Your task to perform on an android device: open app "Airtel Thanks" (install if not already installed) Image 0: 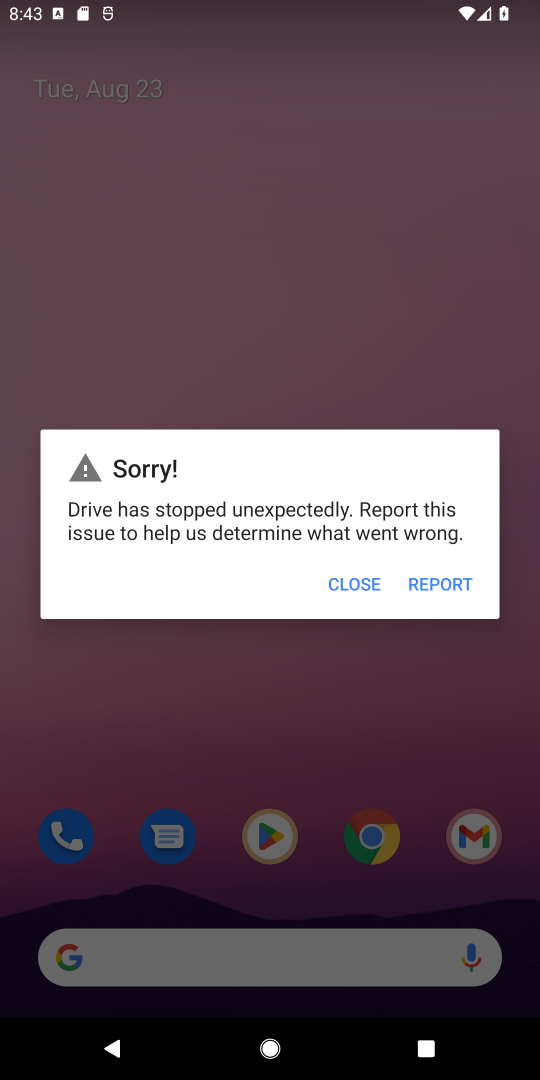
Step 0: press home button
Your task to perform on an android device: open app "Airtel Thanks" (install if not already installed) Image 1: 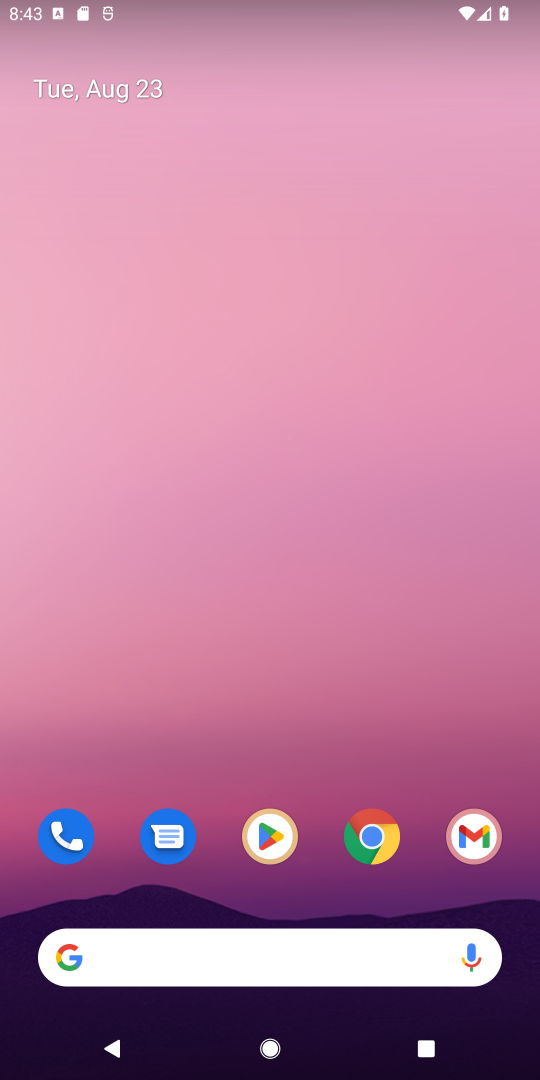
Step 1: click (264, 836)
Your task to perform on an android device: open app "Airtel Thanks" (install if not already installed) Image 2: 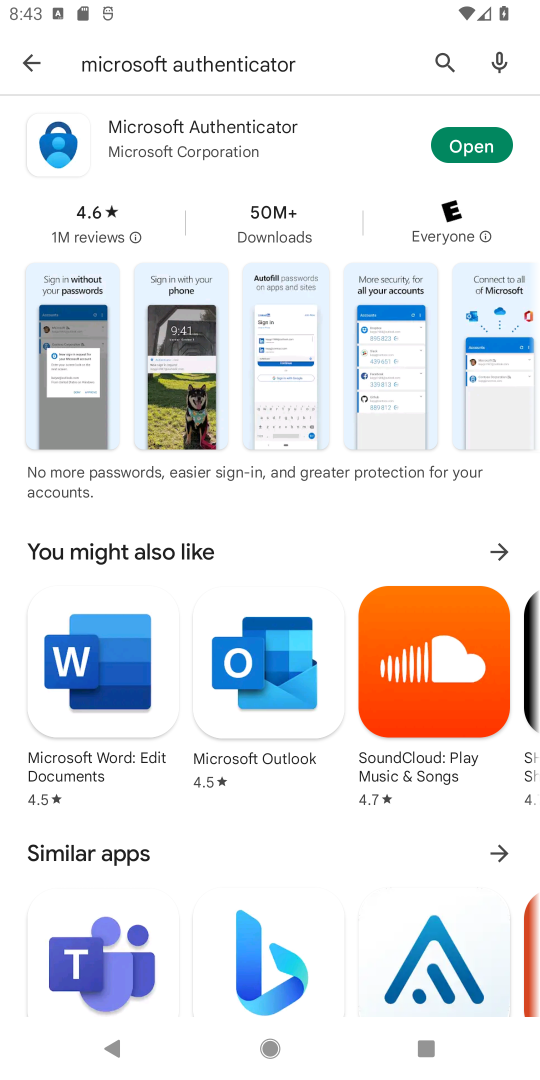
Step 2: click (436, 55)
Your task to perform on an android device: open app "Airtel Thanks" (install if not already installed) Image 3: 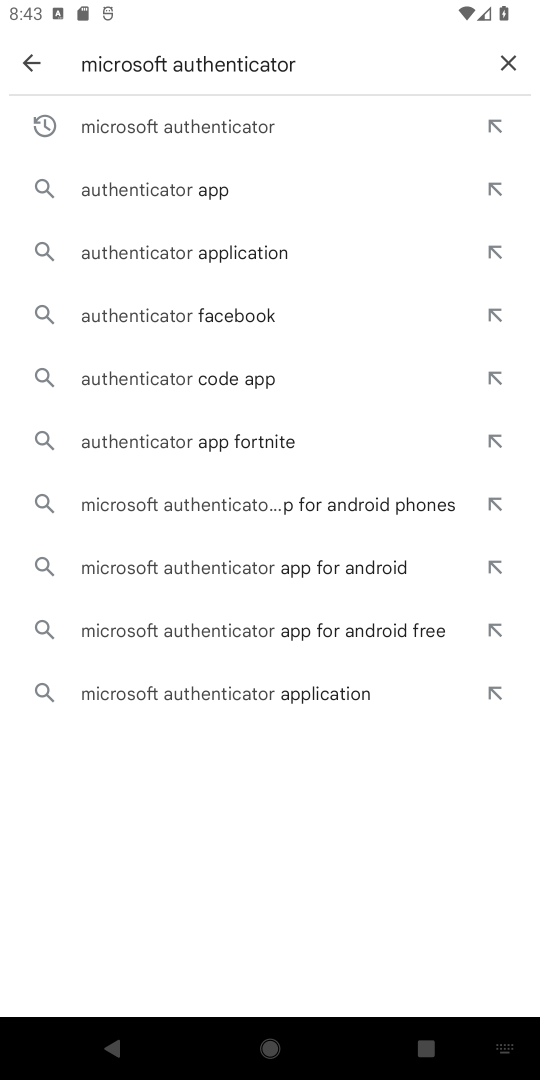
Step 3: click (512, 57)
Your task to perform on an android device: open app "Airtel Thanks" (install if not already installed) Image 4: 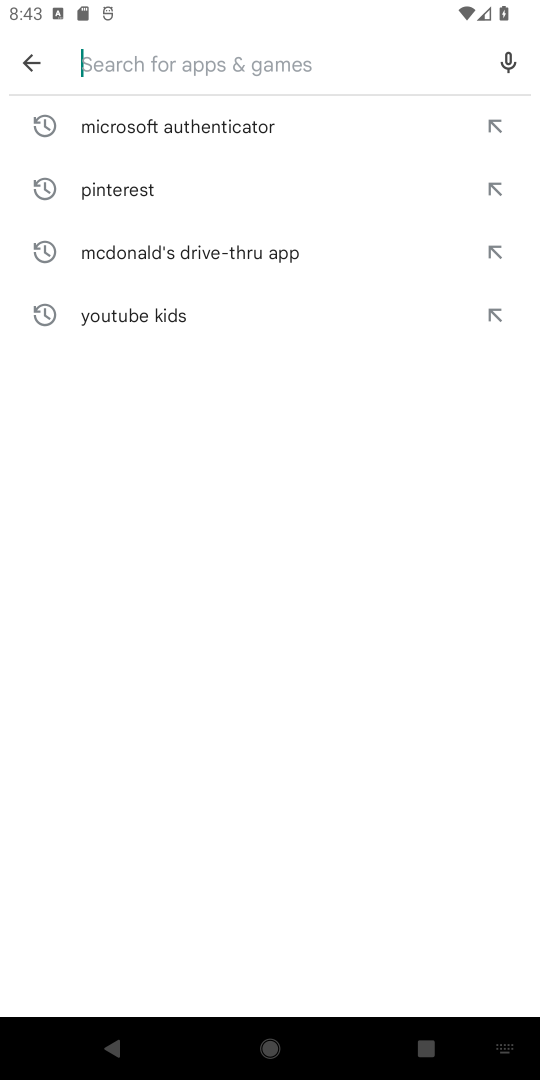
Step 4: type "Airtel Thanks"
Your task to perform on an android device: open app "Airtel Thanks" (install if not already installed) Image 5: 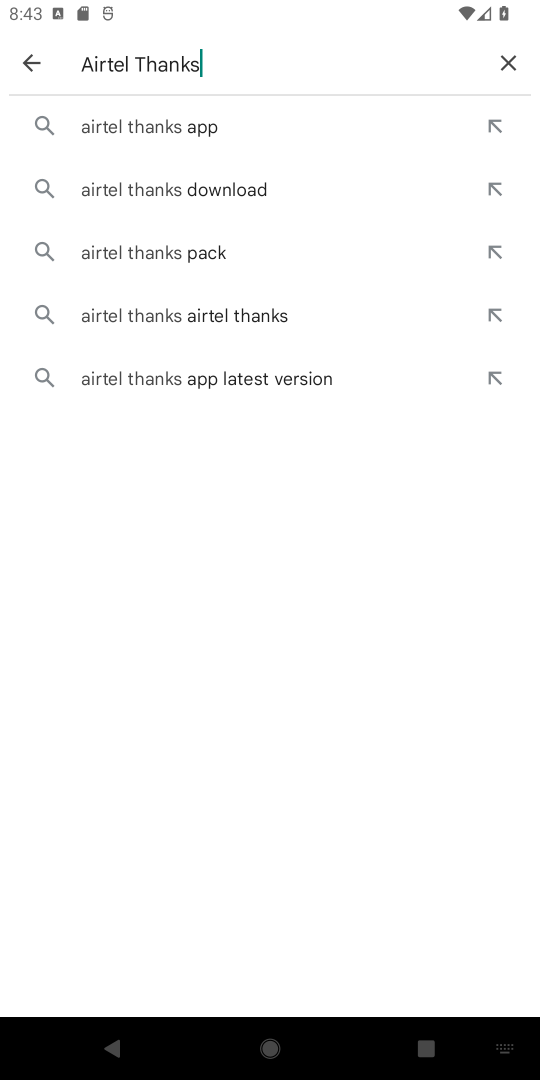
Step 5: click (172, 125)
Your task to perform on an android device: open app "Airtel Thanks" (install if not already installed) Image 6: 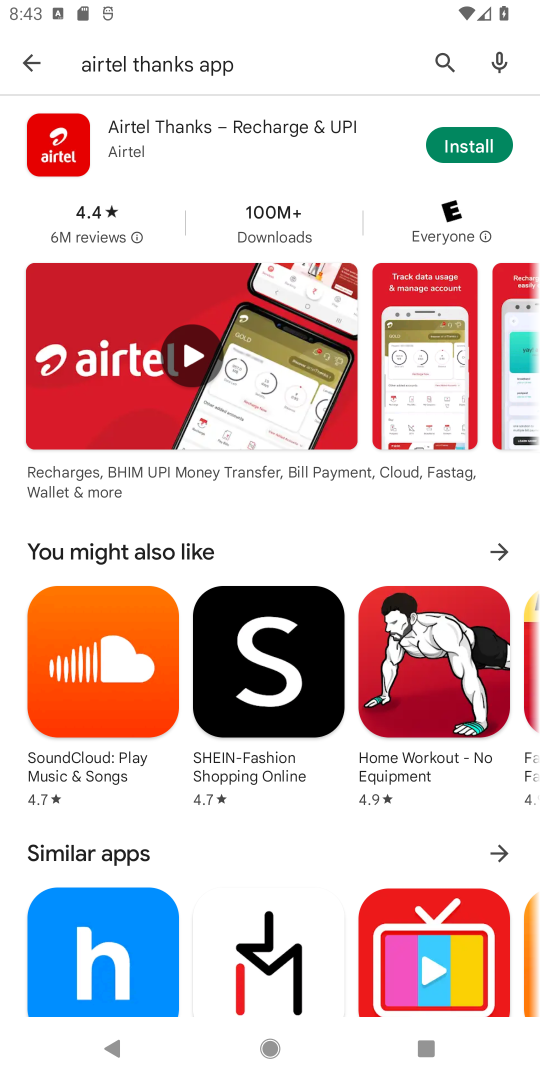
Step 6: click (471, 148)
Your task to perform on an android device: open app "Airtel Thanks" (install if not already installed) Image 7: 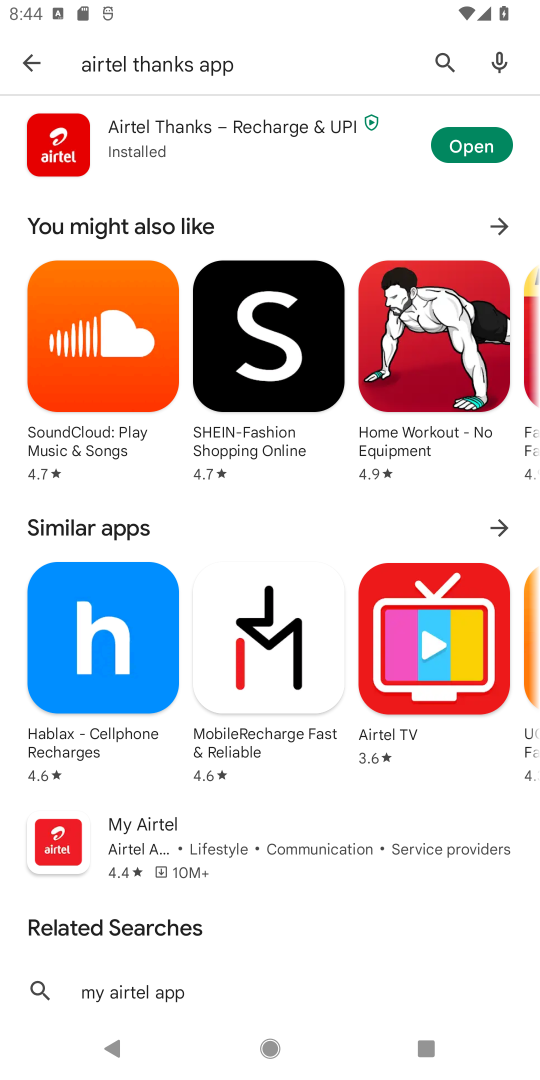
Step 7: click (496, 137)
Your task to perform on an android device: open app "Airtel Thanks" (install if not already installed) Image 8: 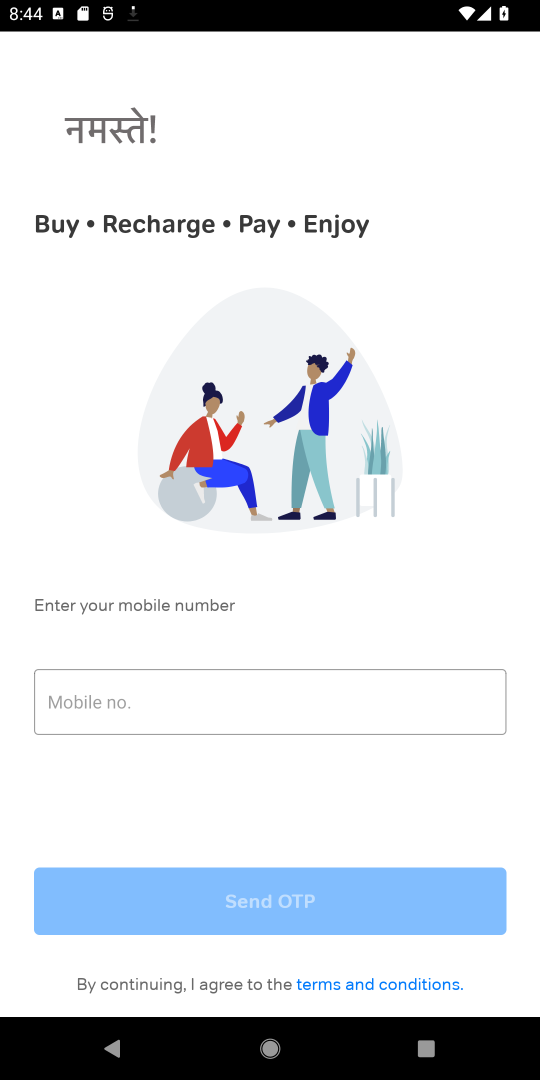
Step 8: task complete